Your task to perform on an android device: Go to notification settings Image 0: 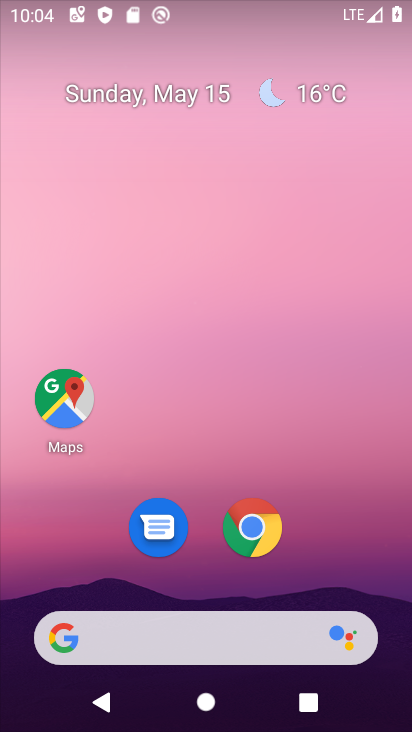
Step 0: drag from (332, 596) to (371, 0)
Your task to perform on an android device: Go to notification settings Image 1: 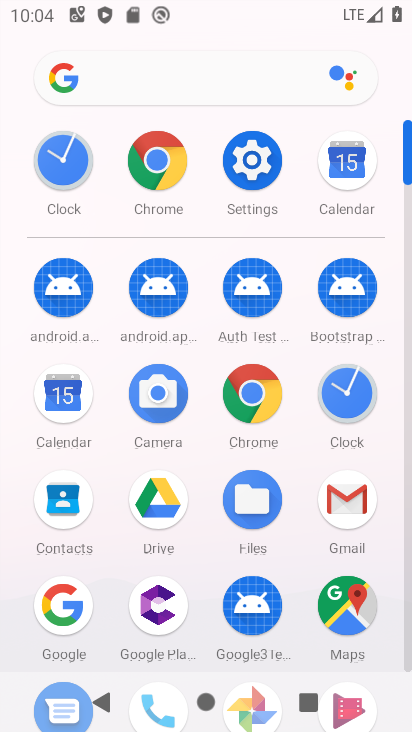
Step 1: click (252, 155)
Your task to perform on an android device: Go to notification settings Image 2: 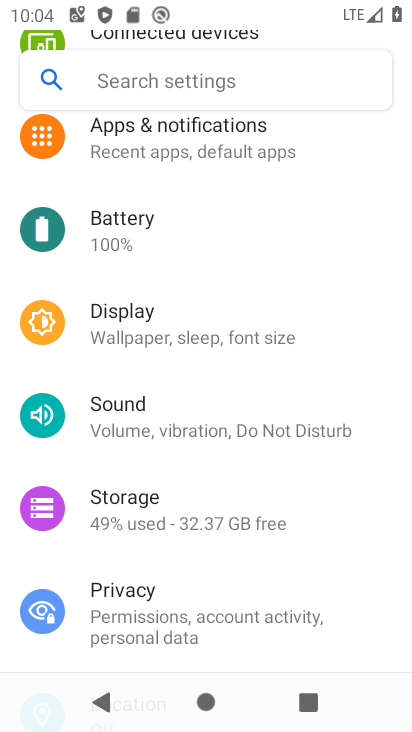
Step 2: click (156, 153)
Your task to perform on an android device: Go to notification settings Image 3: 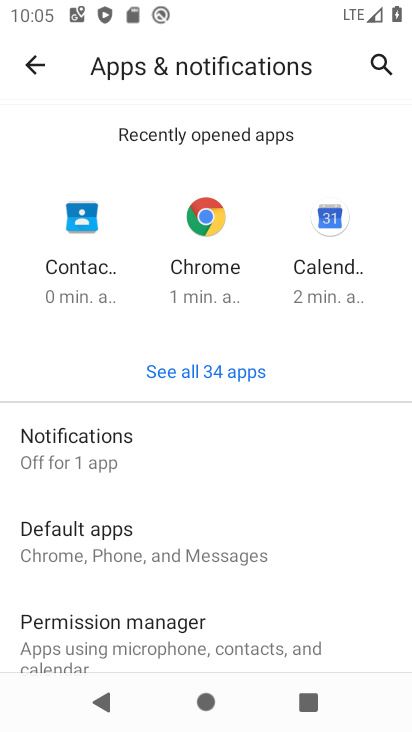
Step 3: task complete